Your task to perform on an android device: Open Google Image 0: 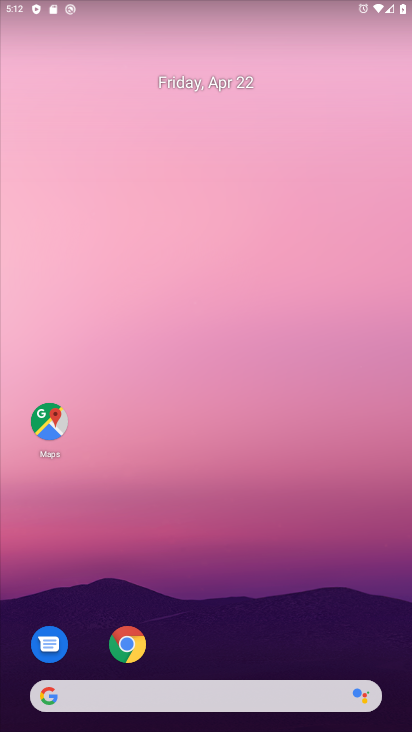
Step 0: click (181, 689)
Your task to perform on an android device: Open Google Image 1: 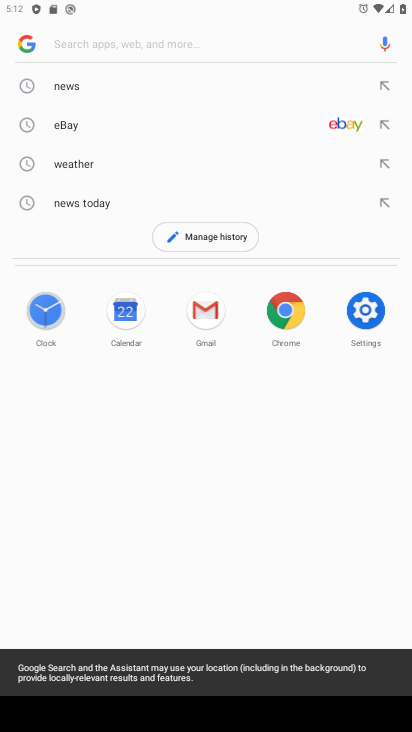
Step 1: click (18, 43)
Your task to perform on an android device: Open Google Image 2: 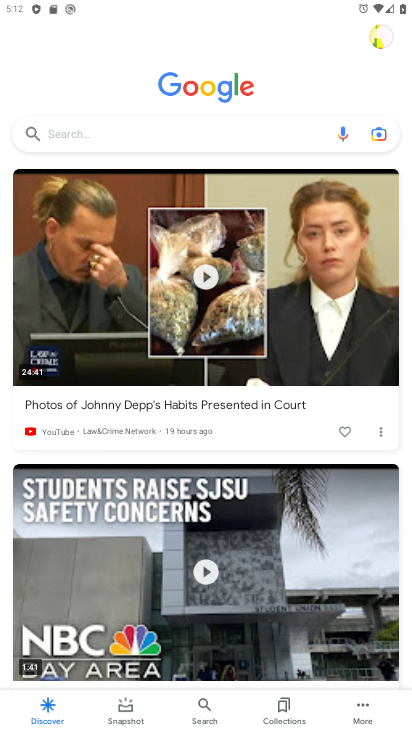
Step 2: task complete